Your task to perform on an android device: Show me productivity apps on the Play Store Image 0: 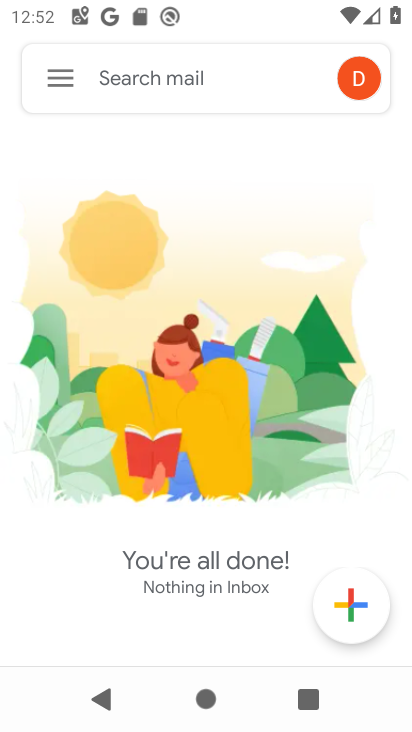
Step 0: press home button
Your task to perform on an android device: Show me productivity apps on the Play Store Image 1: 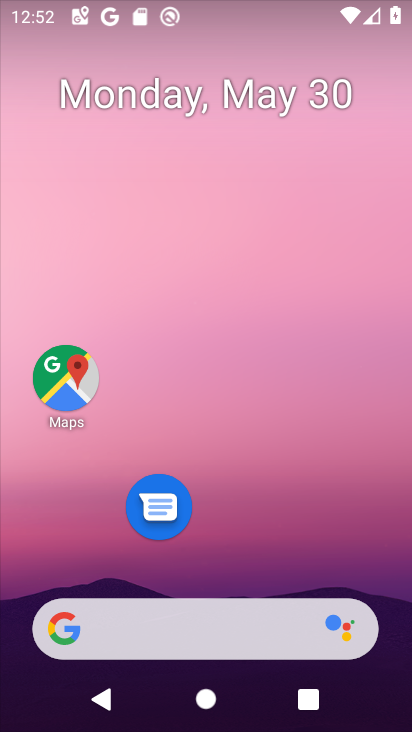
Step 1: drag from (247, 544) to (295, 98)
Your task to perform on an android device: Show me productivity apps on the Play Store Image 2: 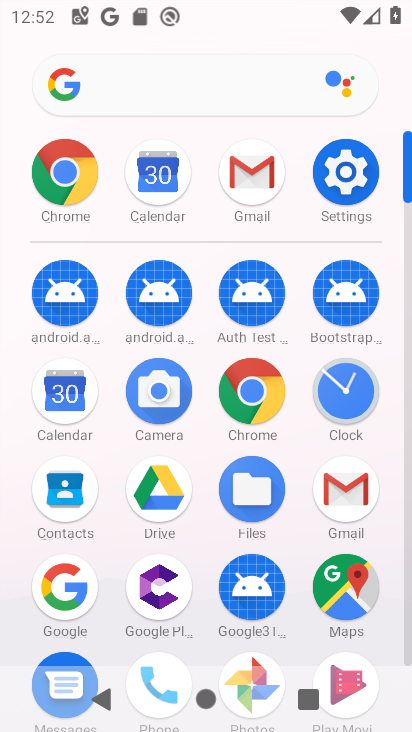
Step 2: drag from (192, 348) to (228, 19)
Your task to perform on an android device: Show me productivity apps on the Play Store Image 3: 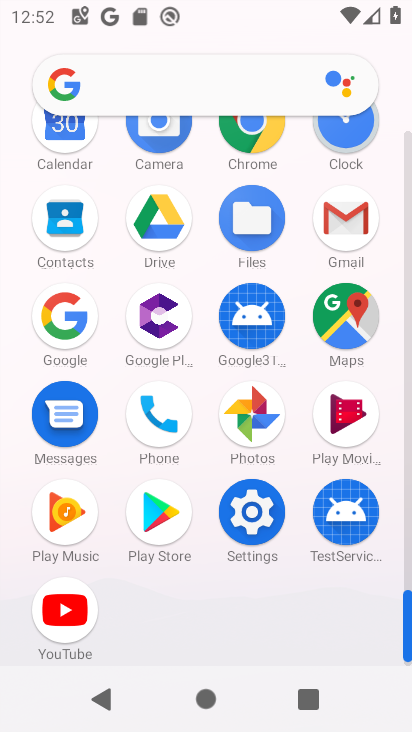
Step 3: click (162, 517)
Your task to perform on an android device: Show me productivity apps on the Play Store Image 4: 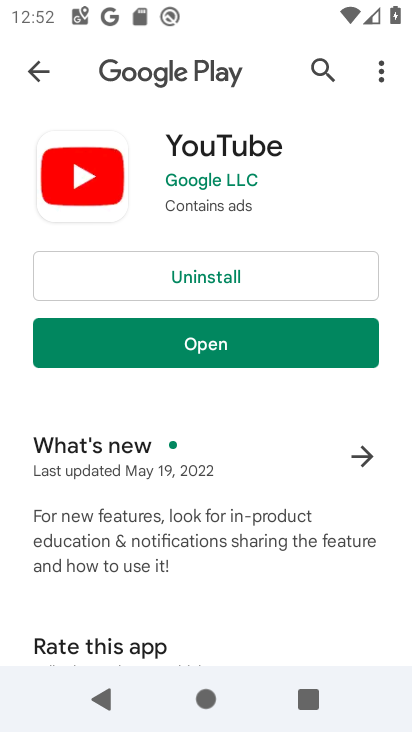
Step 4: click (35, 75)
Your task to perform on an android device: Show me productivity apps on the Play Store Image 5: 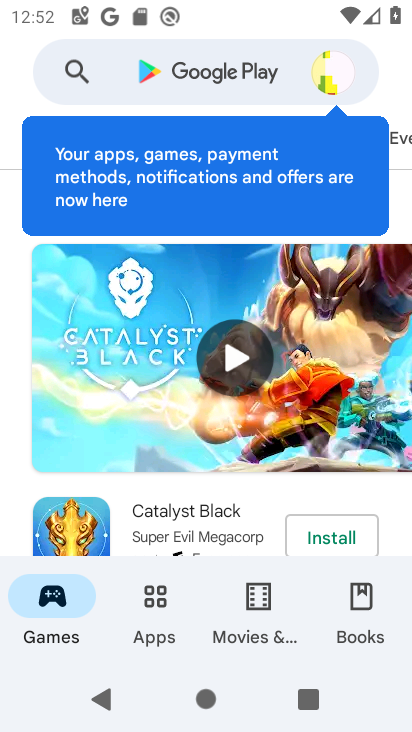
Step 5: click (161, 81)
Your task to perform on an android device: Show me productivity apps on the Play Store Image 6: 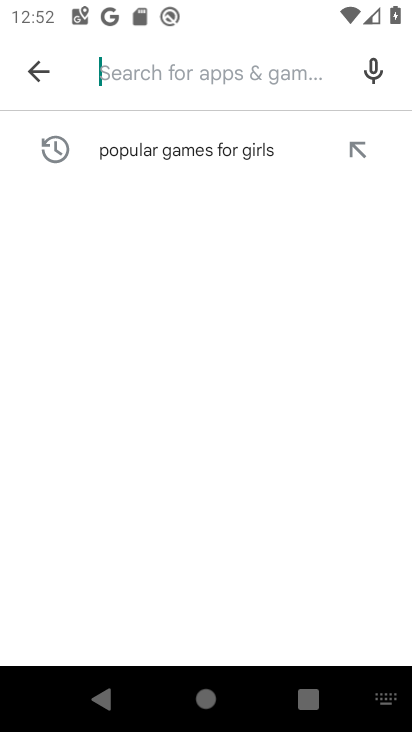
Step 6: type " productivity apps"
Your task to perform on an android device: Show me productivity apps on the Play Store Image 7: 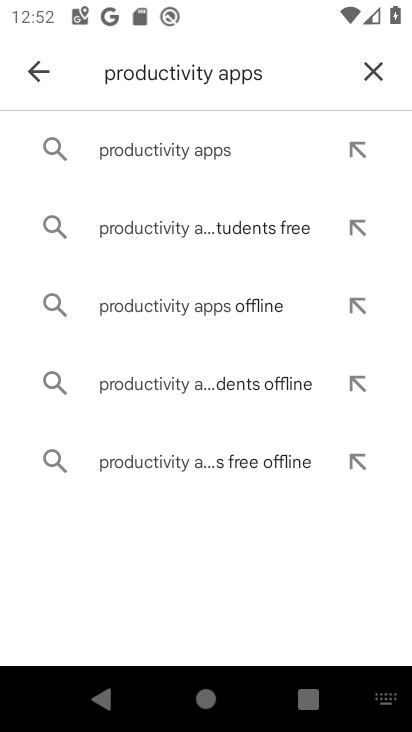
Step 7: click (171, 154)
Your task to perform on an android device: Show me productivity apps on the Play Store Image 8: 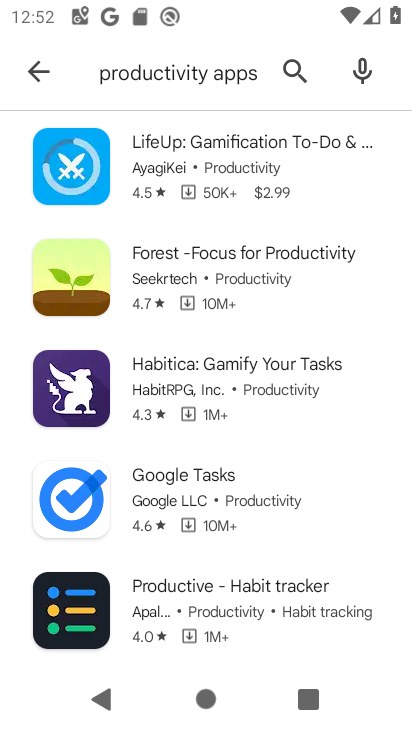
Step 8: task complete